Your task to perform on an android device: turn off airplane mode Image 0: 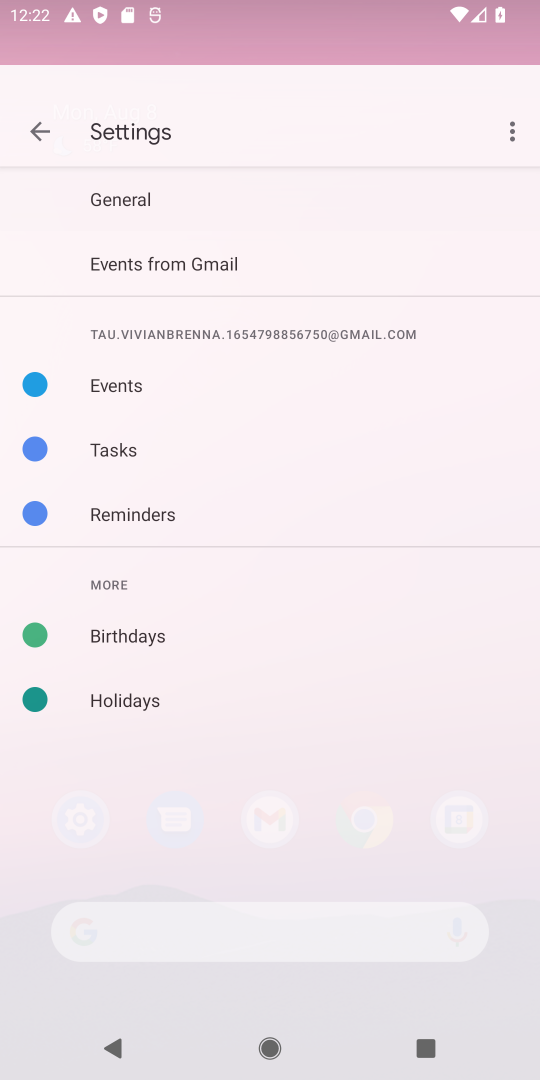
Step 0: press home button
Your task to perform on an android device: turn off airplane mode Image 1: 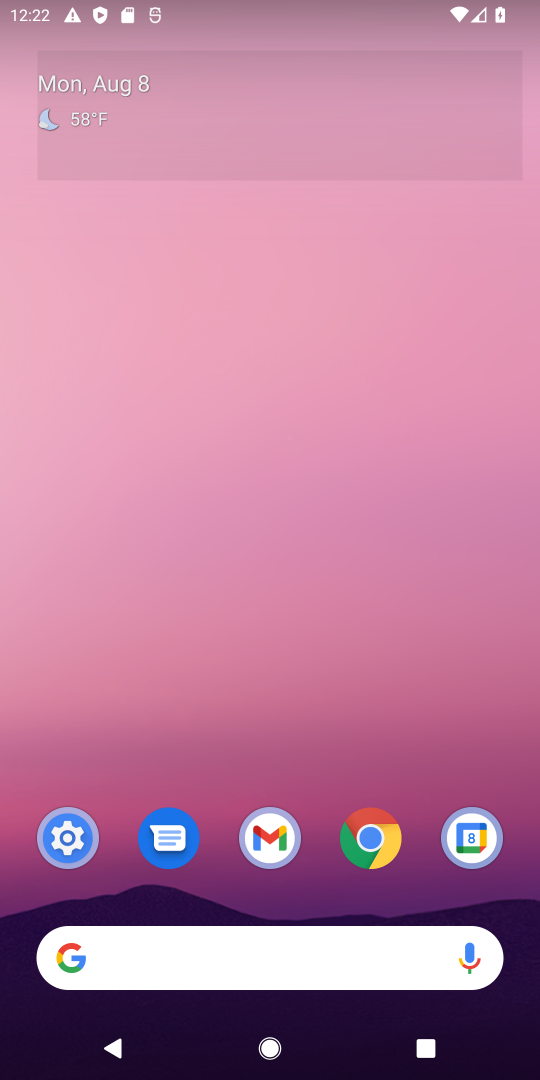
Step 1: task complete